Your task to perform on an android device: open app "The Home Depot" (install if not already installed) and enter user name: "taproot@icloud.com" and password: "executions" Image 0: 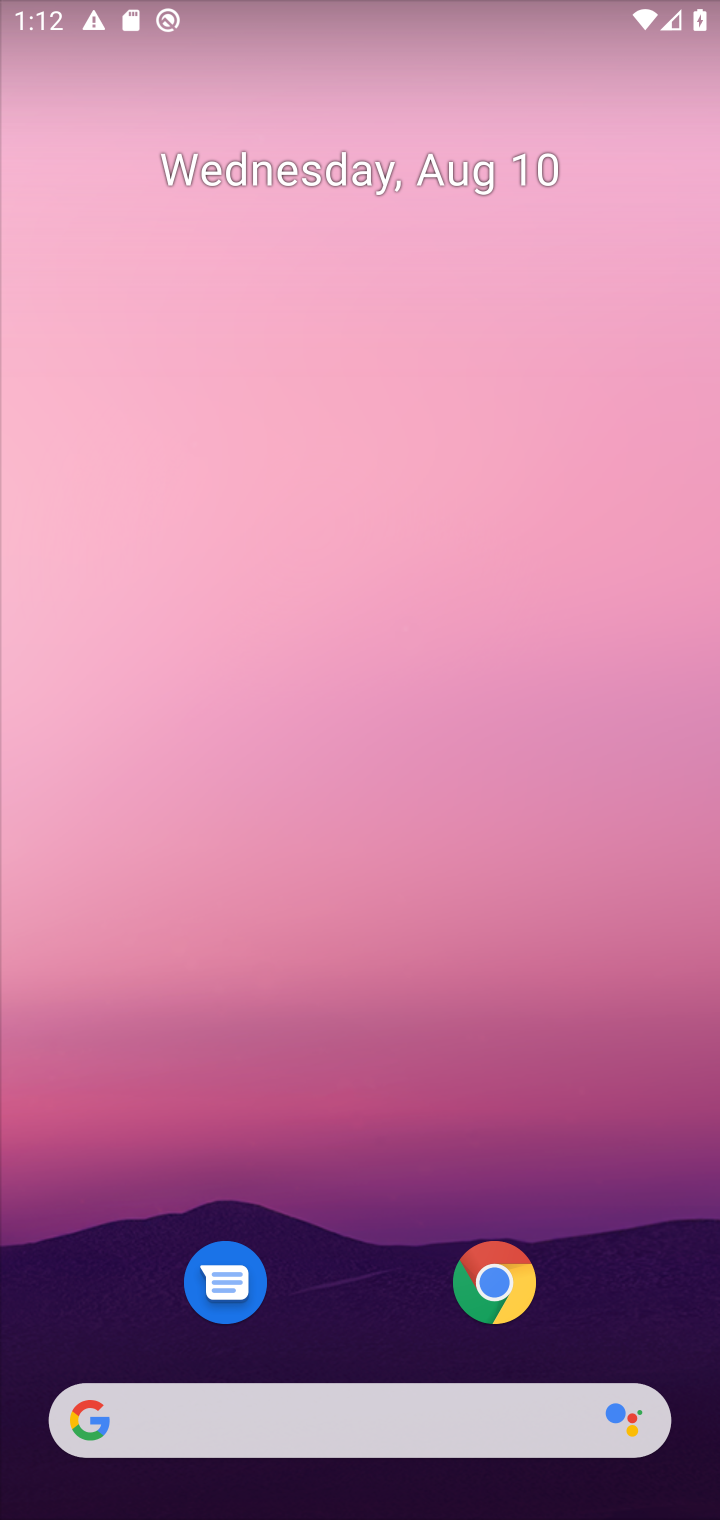
Step 0: drag from (380, 1310) to (383, 243)
Your task to perform on an android device: open app "The Home Depot" (install if not already installed) and enter user name: "taproot@icloud.com" and password: "executions" Image 1: 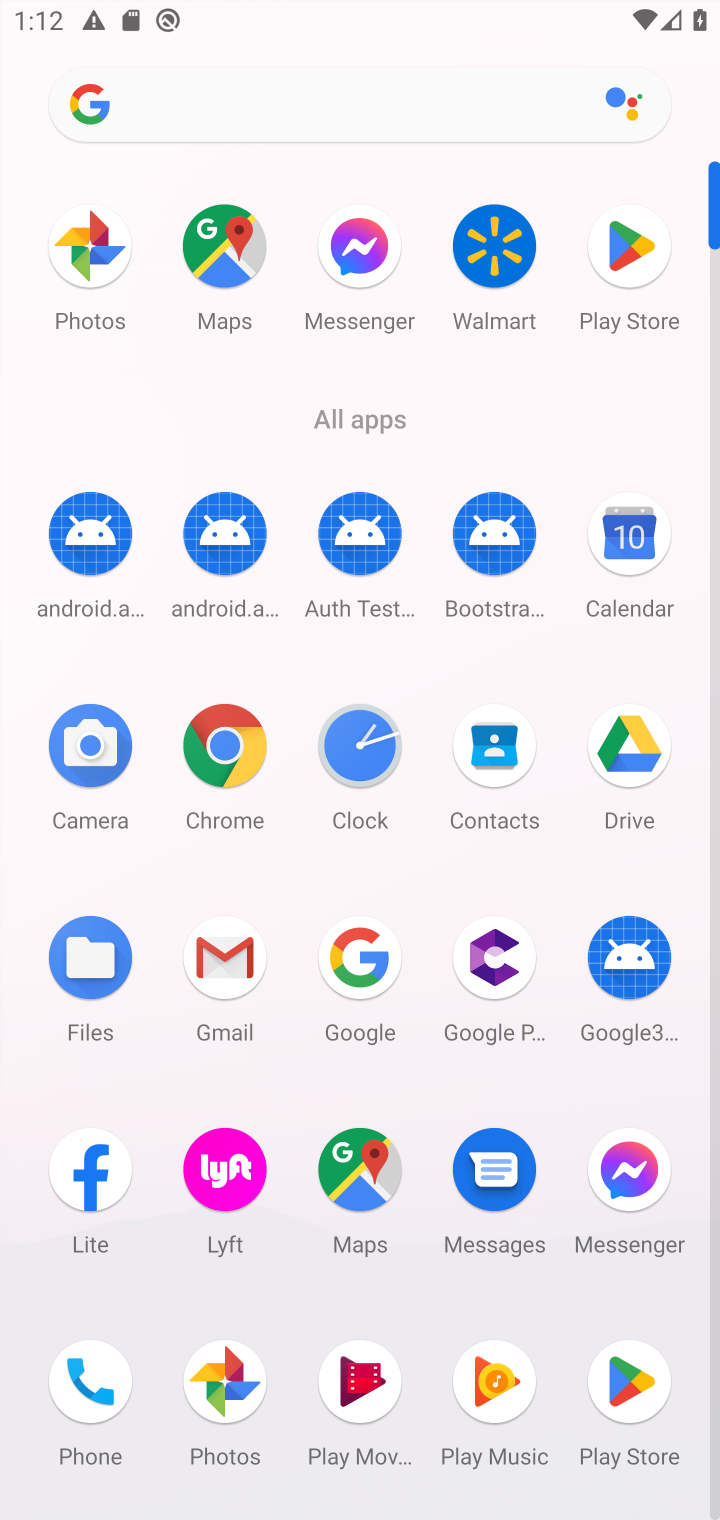
Step 1: click (651, 236)
Your task to perform on an android device: open app "The Home Depot" (install if not already installed) and enter user name: "taproot@icloud.com" and password: "executions" Image 2: 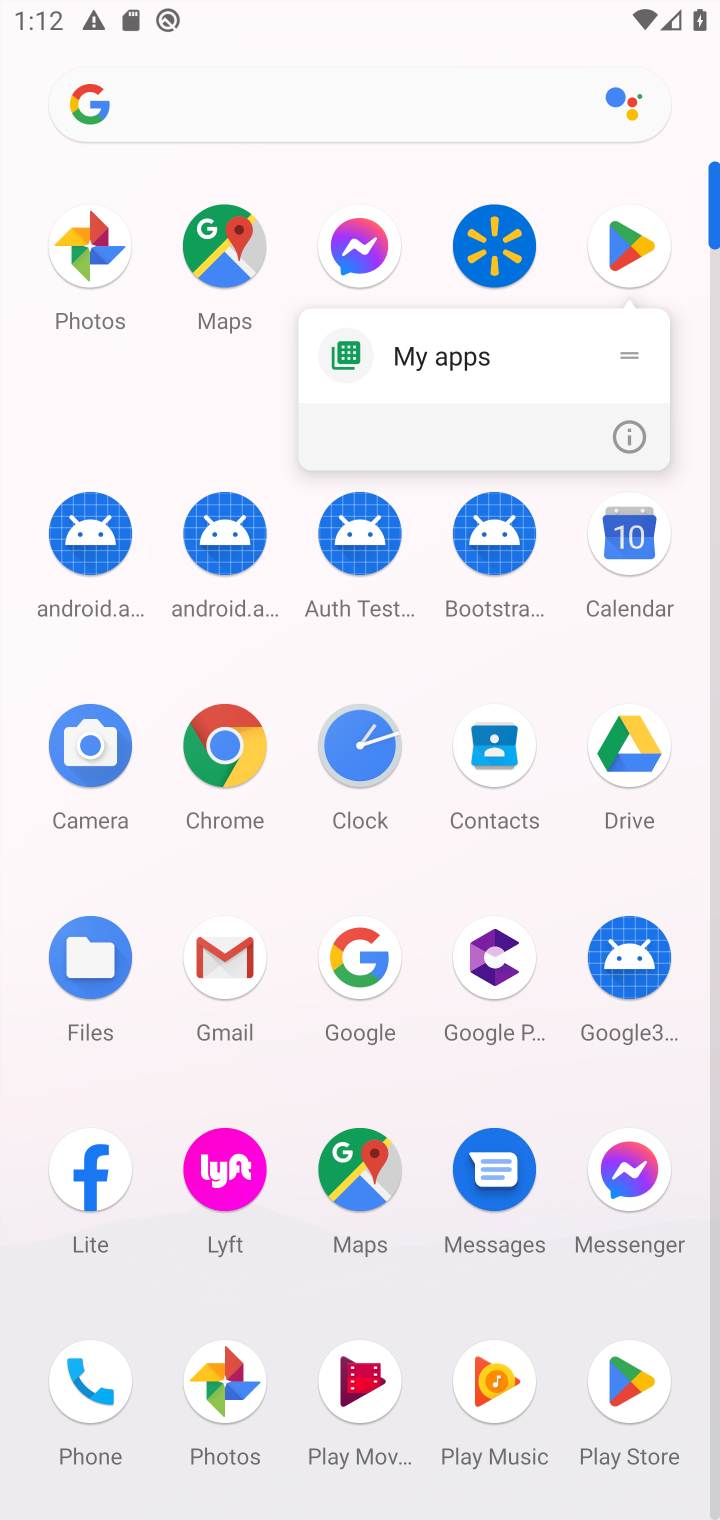
Step 2: click (641, 243)
Your task to perform on an android device: open app "The Home Depot" (install if not already installed) and enter user name: "taproot@icloud.com" and password: "executions" Image 3: 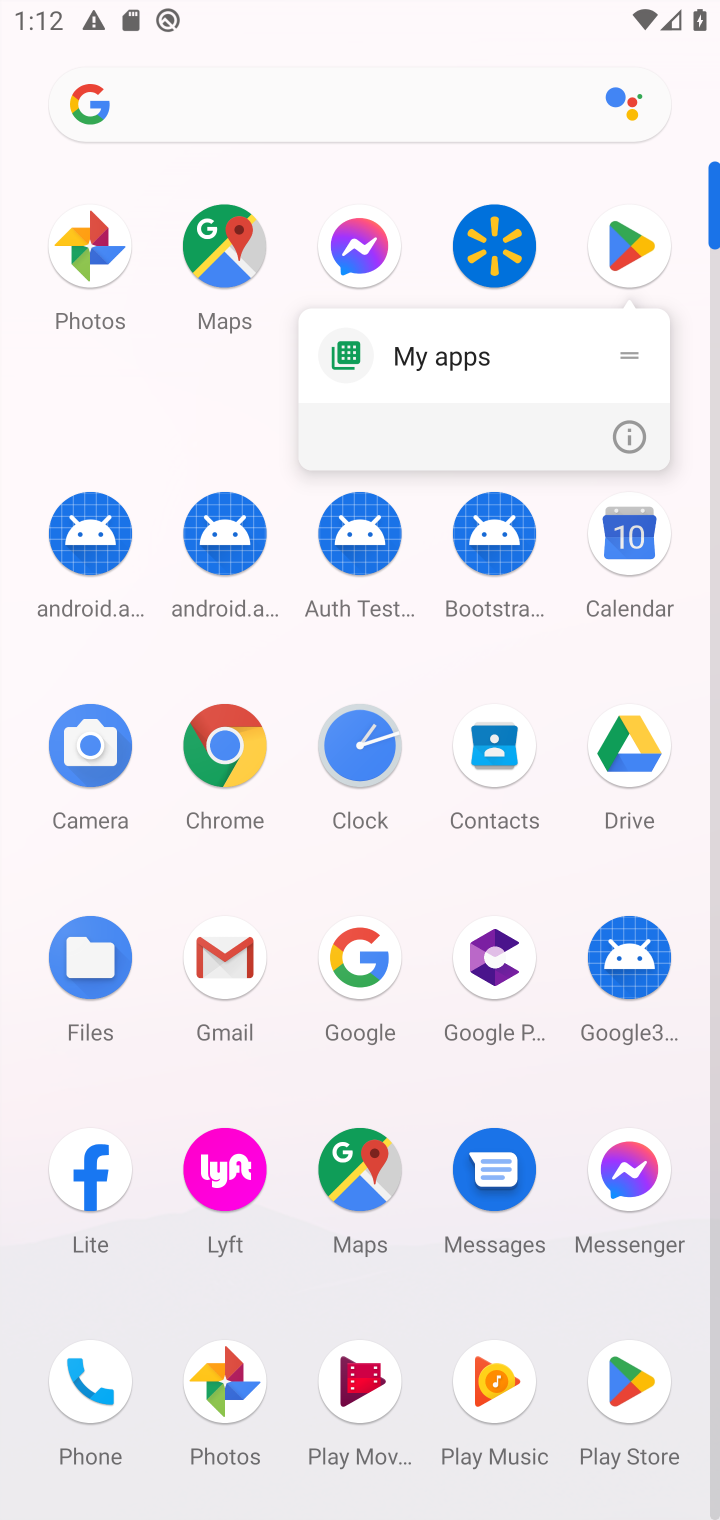
Step 3: click (637, 243)
Your task to perform on an android device: open app "The Home Depot" (install if not already installed) and enter user name: "taproot@icloud.com" and password: "executions" Image 4: 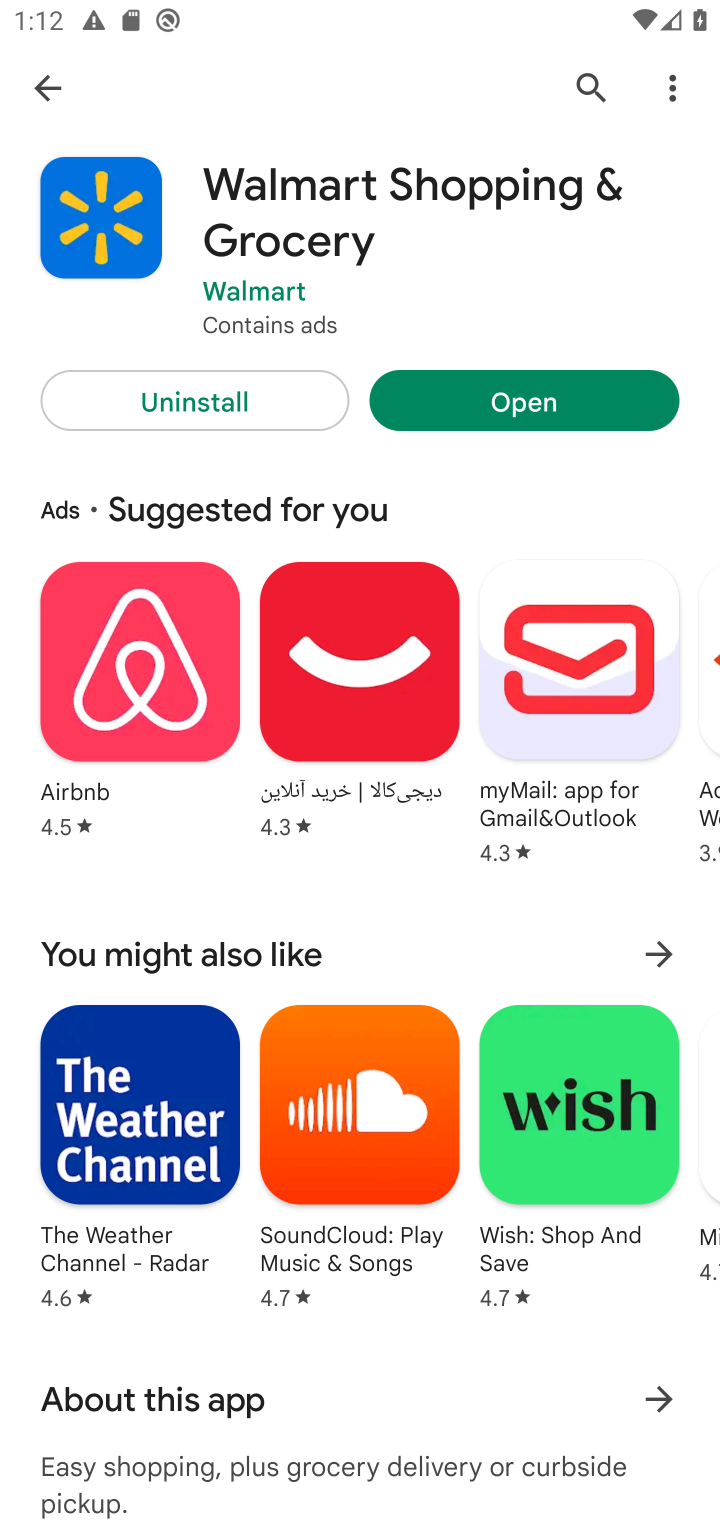
Step 4: click (47, 69)
Your task to perform on an android device: open app "The Home Depot" (install if not already installed) and enter user name: "taproot@icloud.com" and password: "executions" Image 5: 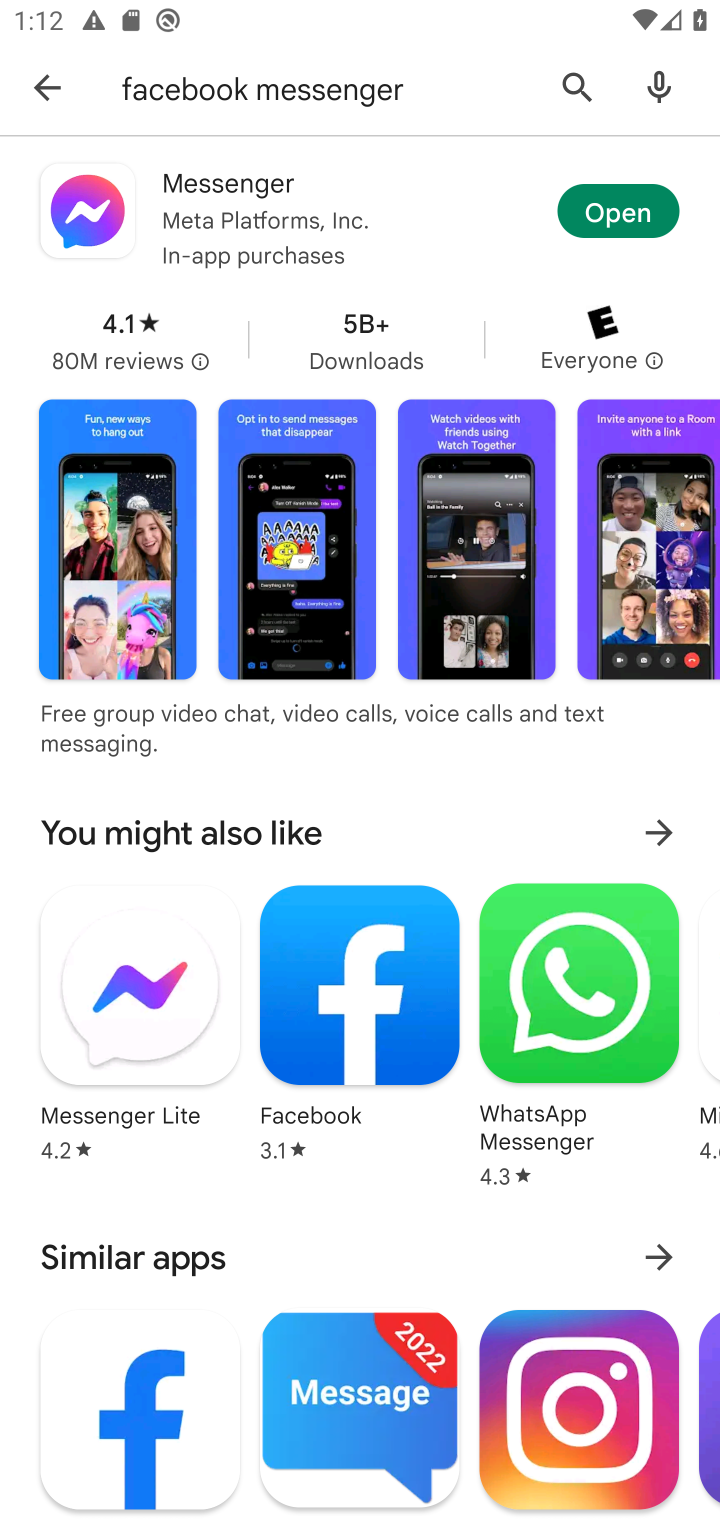
Step 5: click (582, 100)
Your task to perform on an android device: open app "The Home Depot" (install if not already installed) and enter user name: "taproot@icloud.com" and password: "executions" Image 6: 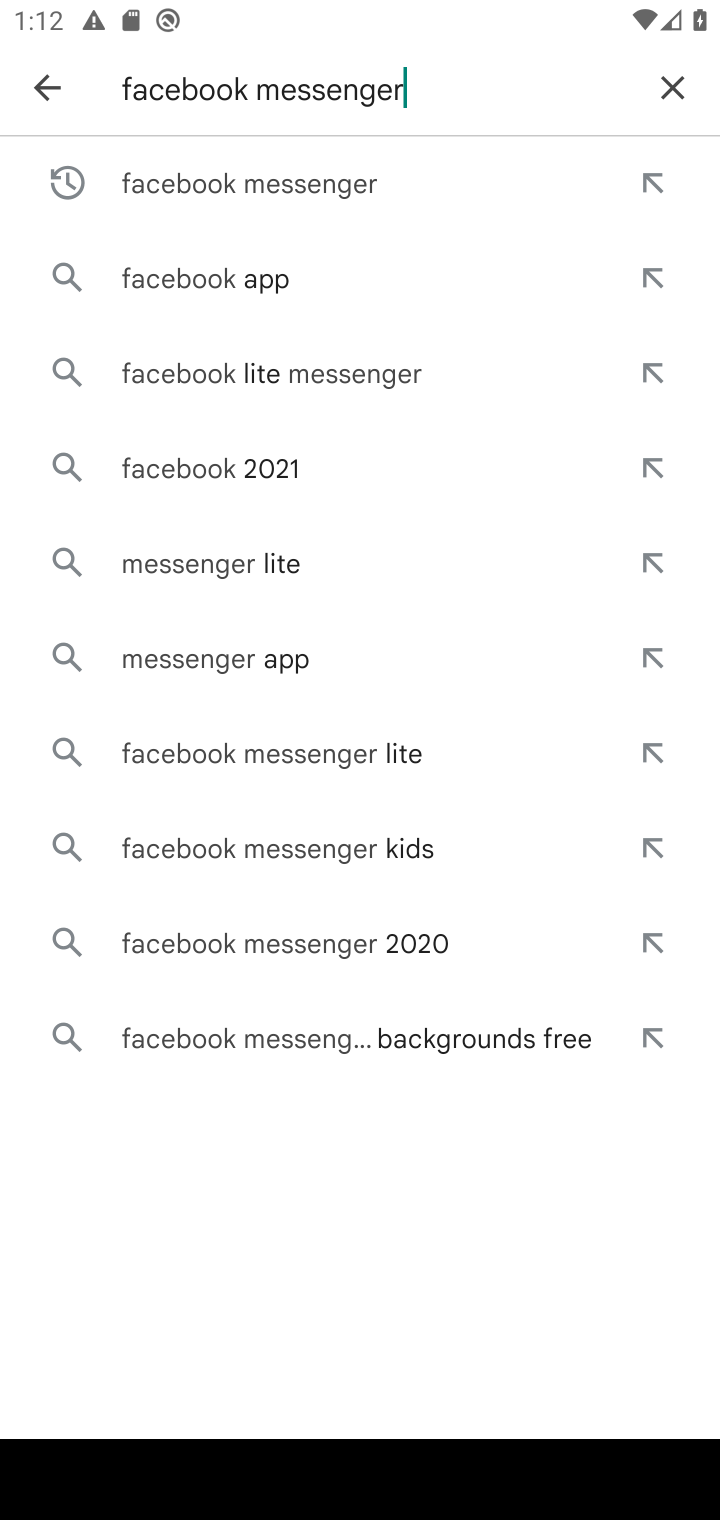
Step 6: click (669, 77)
Your task to perform on an android device: open app "The Home Depot" (install if not already installed) and enter user name: "taproot@icloud.com" and password: "executions" Image 7: 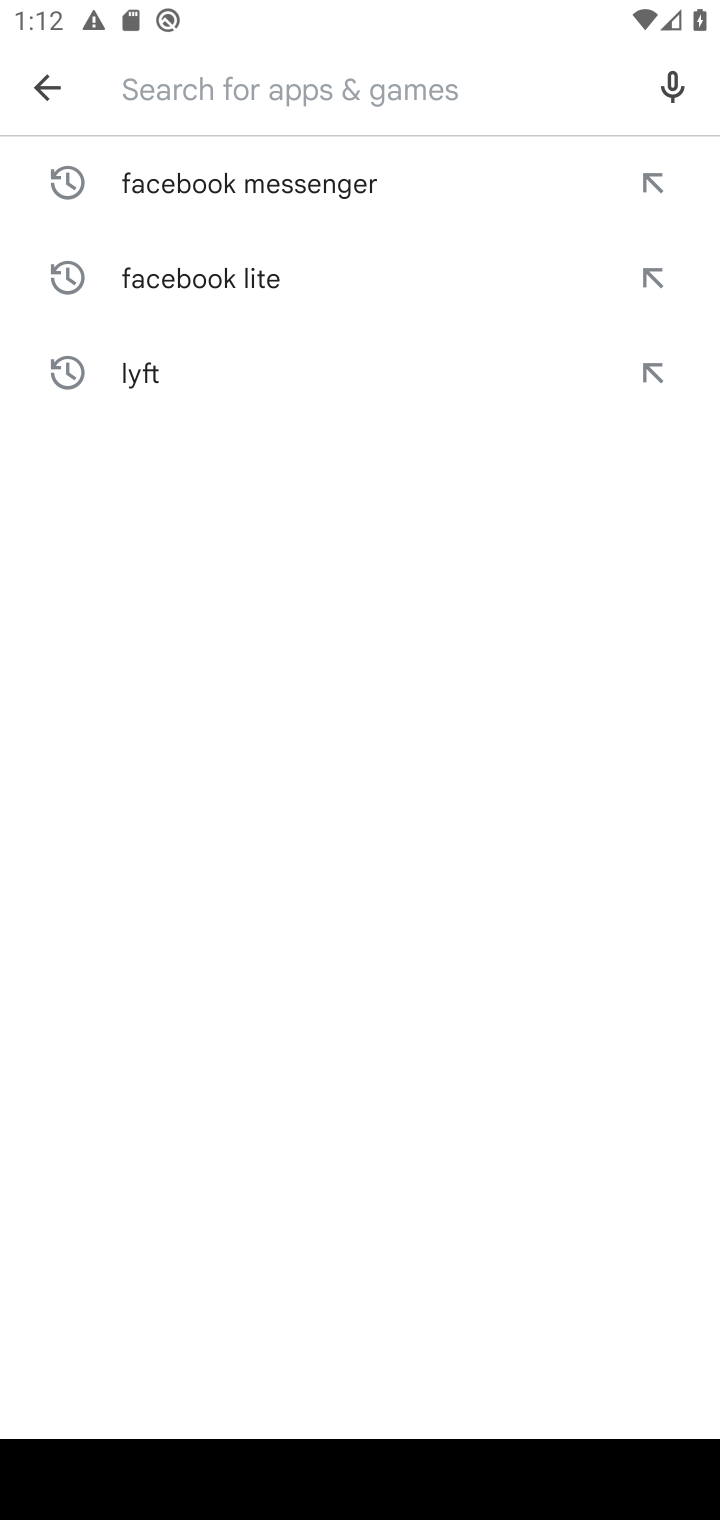
Step 7: type "The Home Depot"
Your task to perform on an android device: open app "The Home Depot" (install if not already installed) and enter user name: "taproot@icloud.com" and password: "executions" Image 8: 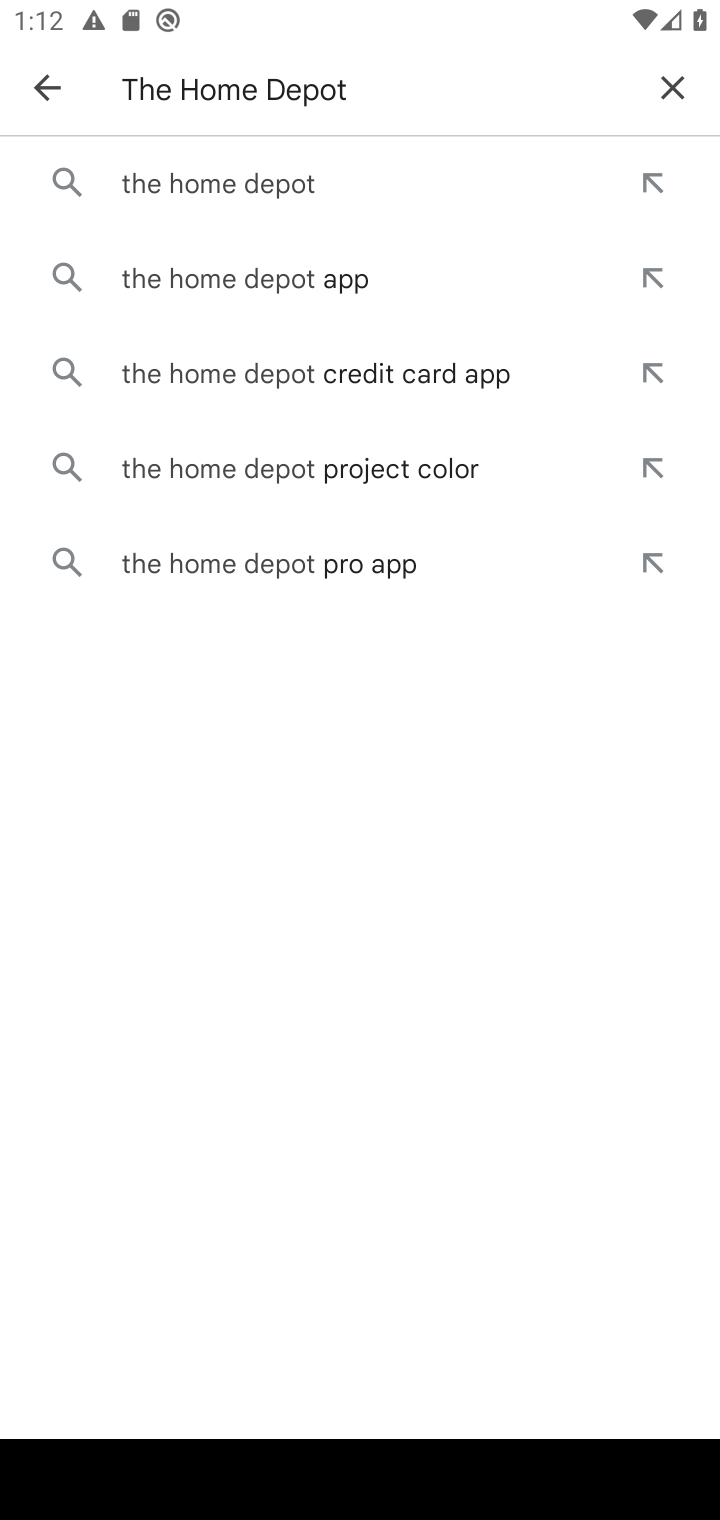
Step 8: click (193, 188)
Your task to perform on an android device: open app "The Home Depot" (install if not already installed) and enter user name: "taproot@icloud.com" and password: "executions" Image 9: 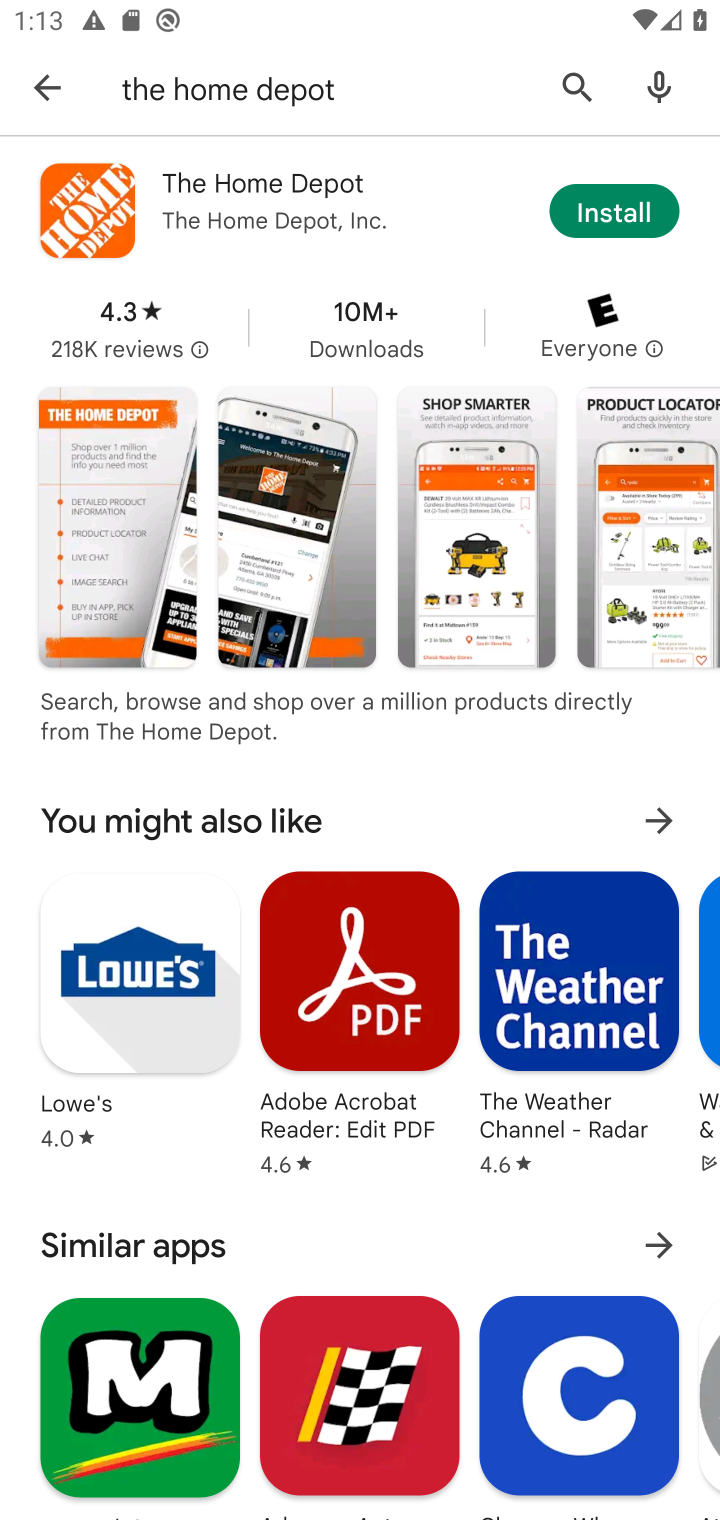
Step 9: click (583, 218)
Your task to perform on an android device: open app "The Home Depot" (install if not already installed) and enter user name: "taproot@icloud.com" and password: "executions" Image 10: 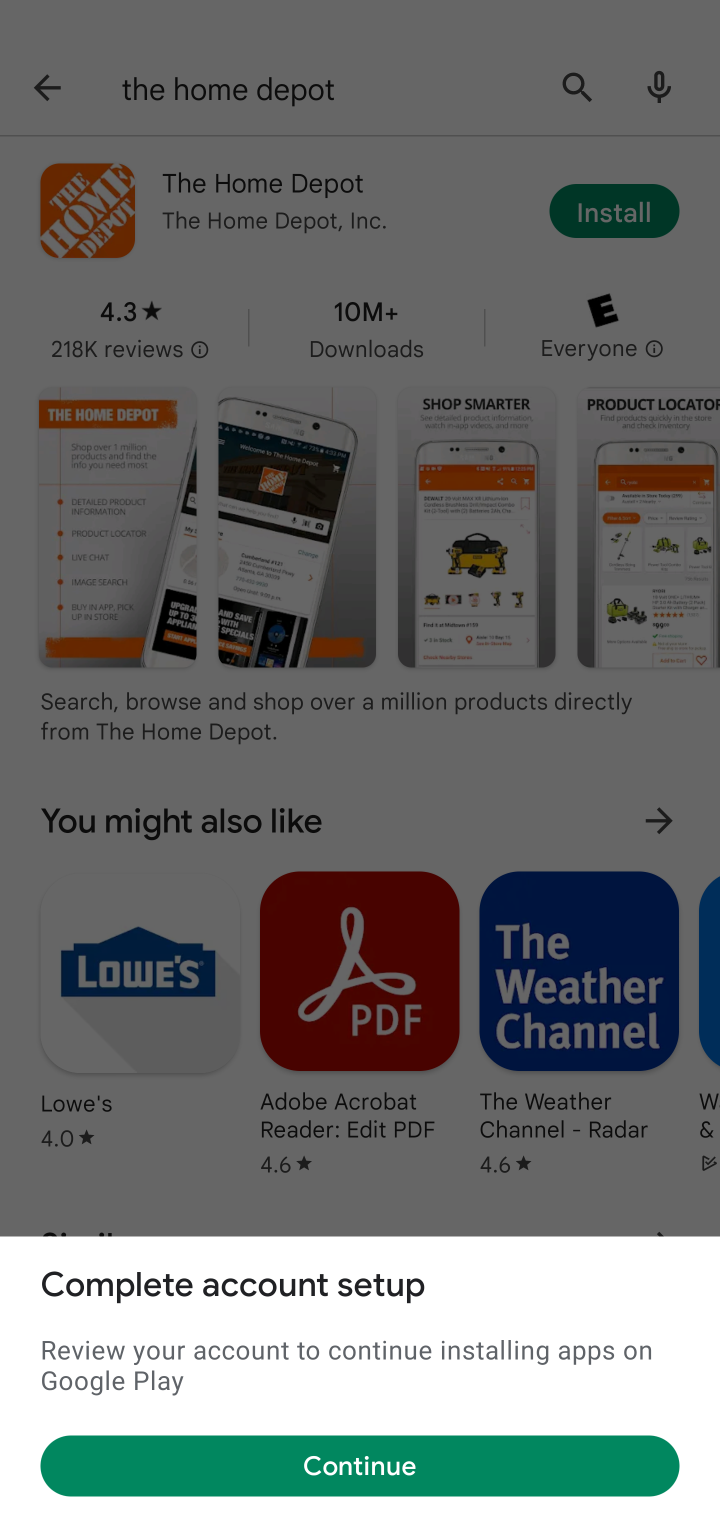
Step 10: click (276, 1450)
Your task to perform on an android device: open app "The Home Depot" (install if not already installed) and enter user name: "taproot@icloud.com" and password: "executions" Image 11: 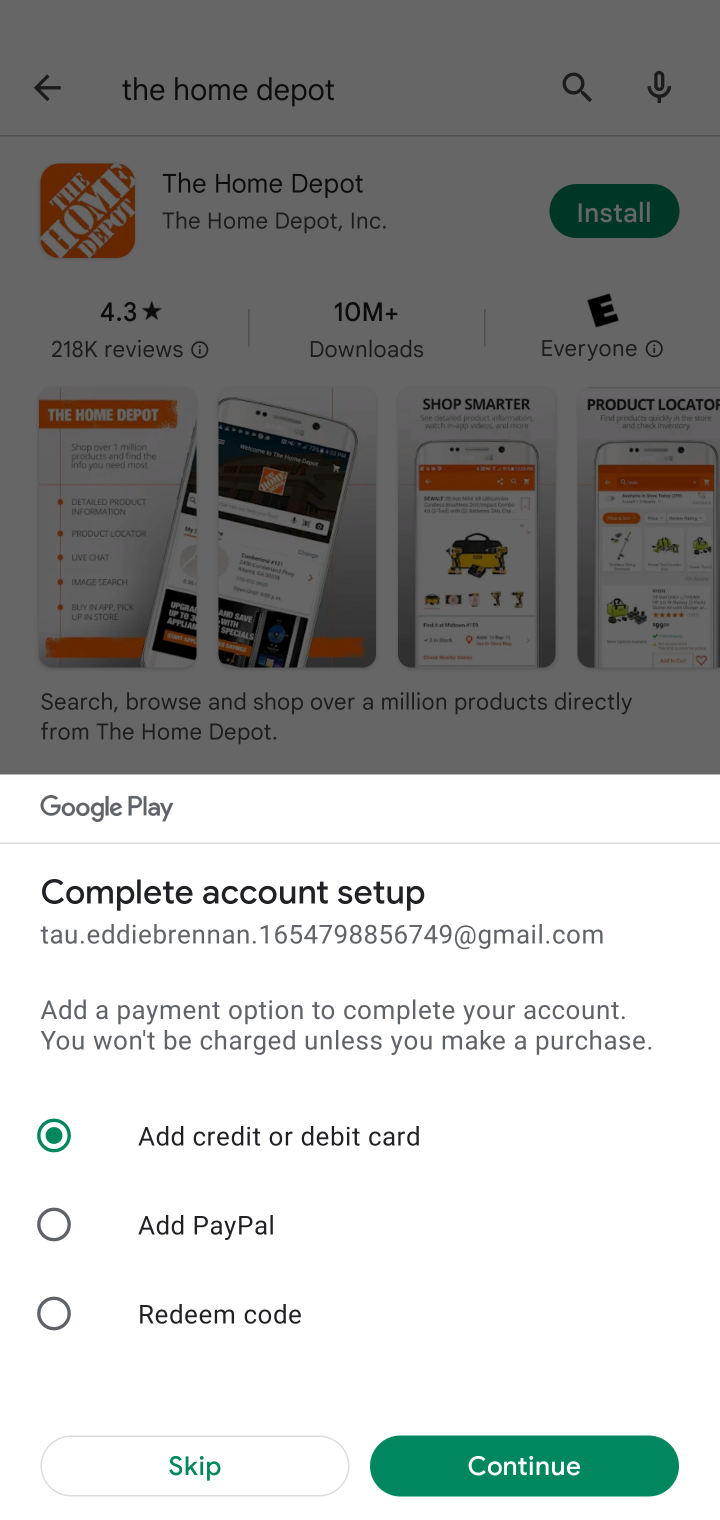
Step 11: click (152, 1454)
Your task to perform on an android device: open app "The Home Depot" (install if not already installed) and enter user name: "taproot@icloud.com" and password: "executions" Image 12: 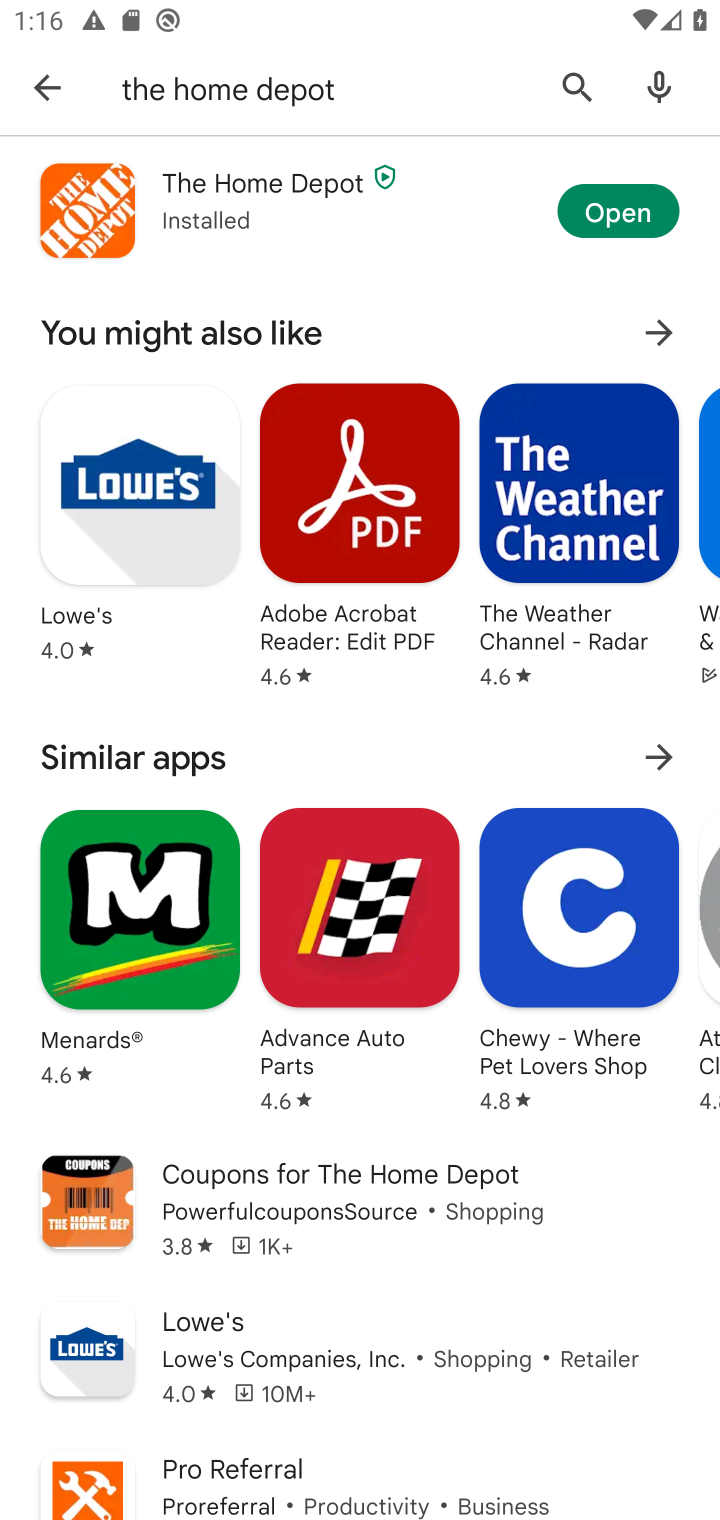
Step 12: click (615, 188)
Your task to perform on an android device: open app "The Home Depot" (install if not already installed) and enter user name: "taproot@icloud.com" and password: "executions" Image 13: 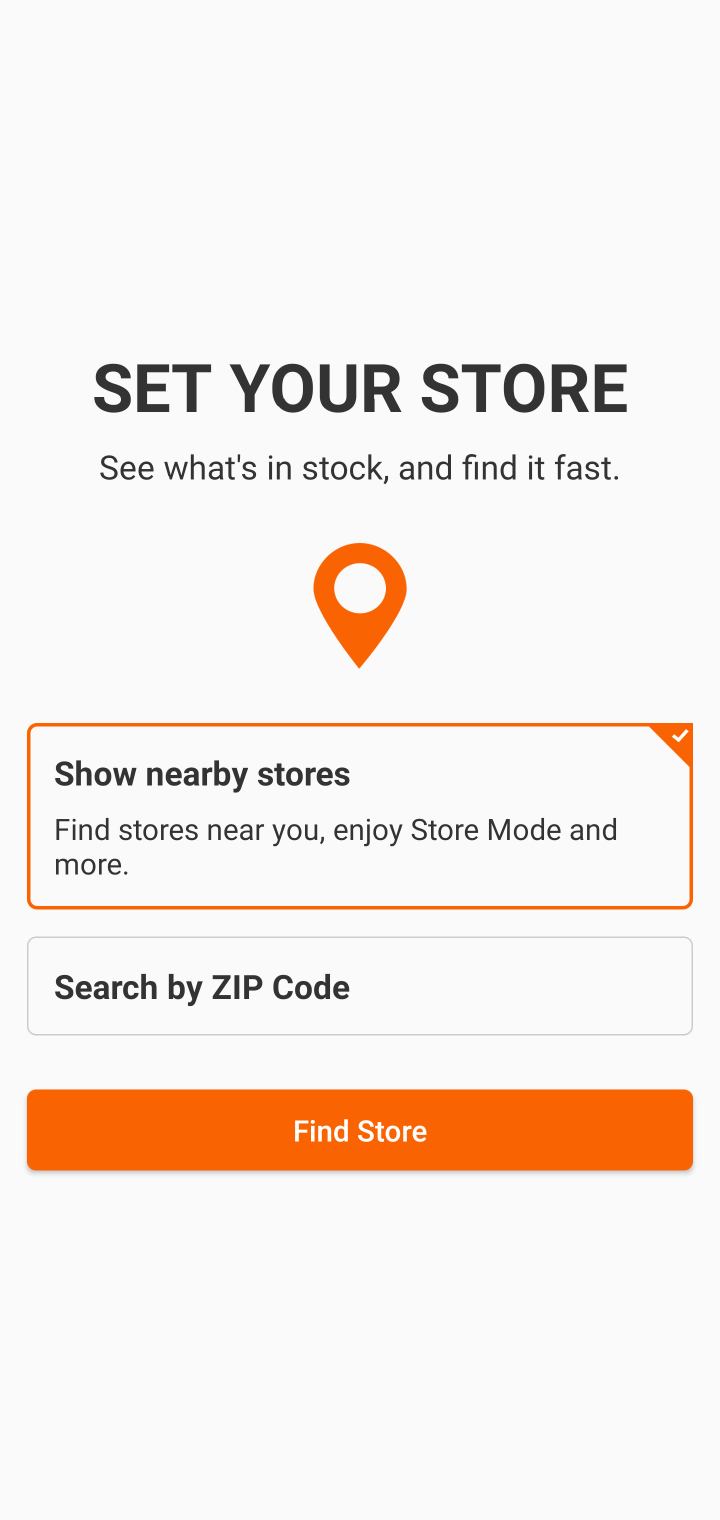
Step 13: click (448, 1109)
Your task to perform on an android device: open app "The Home Depot" (install if not already installed) and enter user name: "taproot@icloud.com" and password: "executions" Image 14: 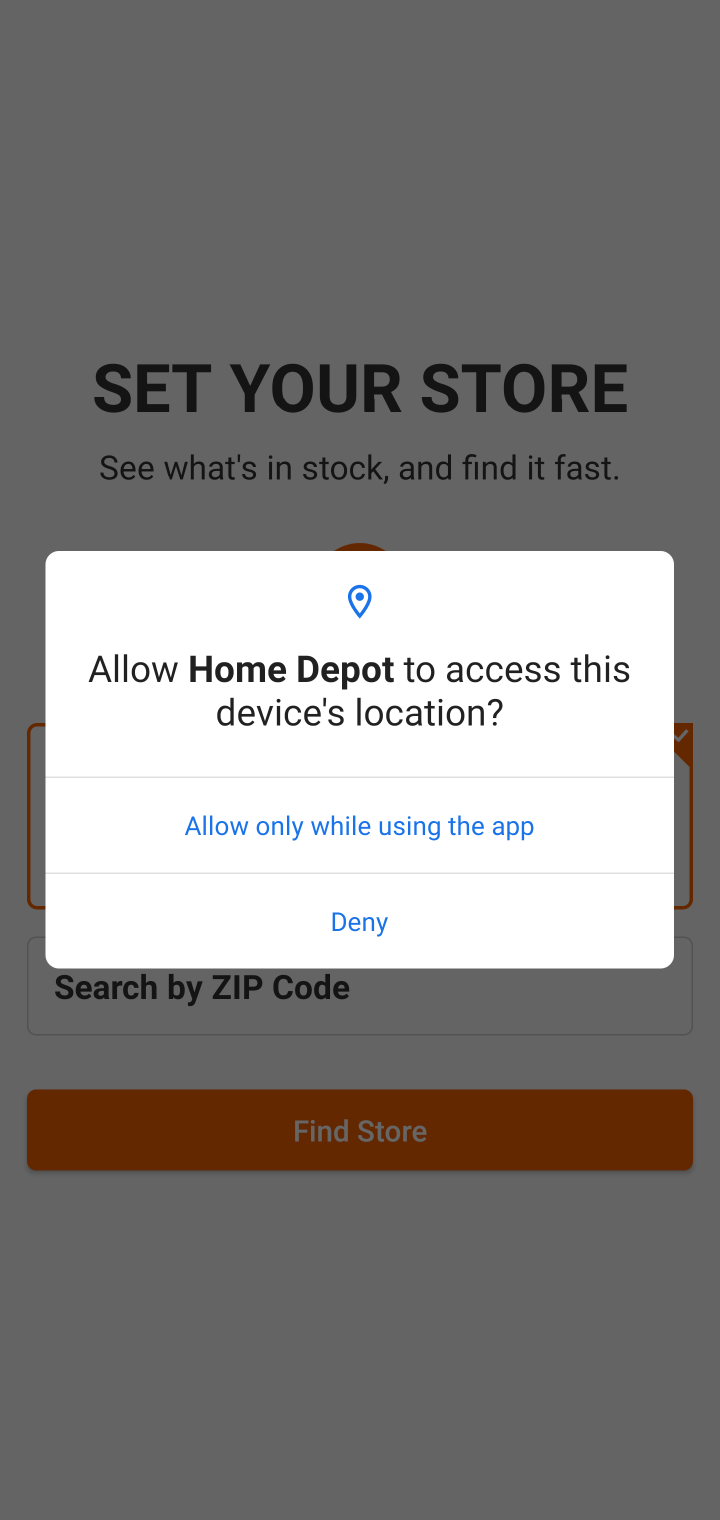
Step 14: click (433, 846)
Your task to perform on an android device: open app "The Home Depot" (install if not already installed) and enter user name: "taproot@icloud.com" and password: "executions" Image 15: 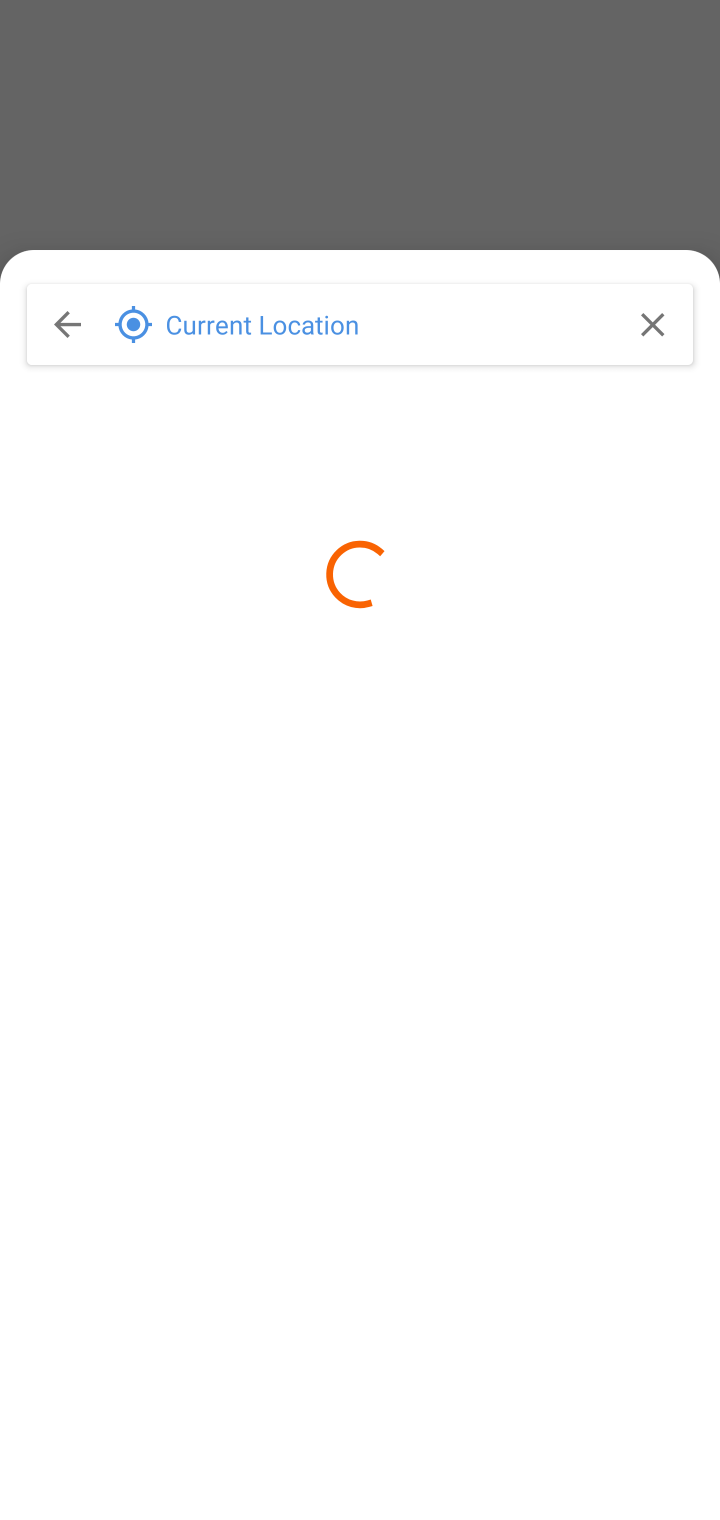
Step 15: task complete